Your task to perform on an android device: What is the recent news? Image 0: 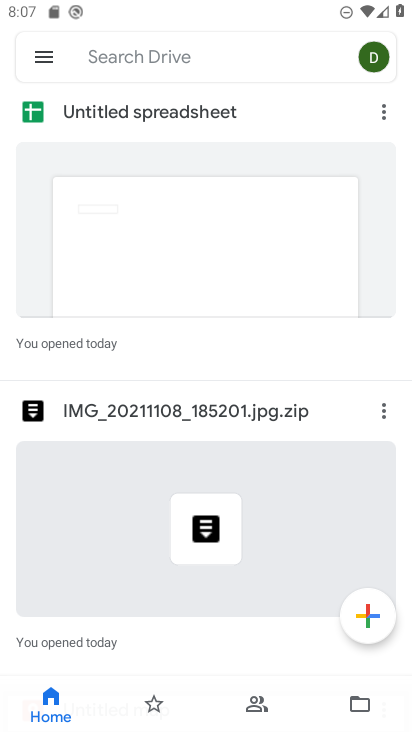
Step 0: press home button
Your task to perform on an android device: What is the recent news? Image 1: 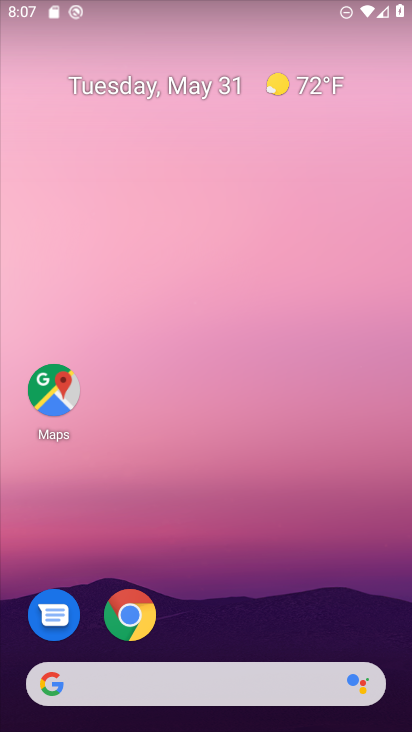
Step 1: click (156, 675)
Your task to perform on an android device: What is the recent news? Image 2: 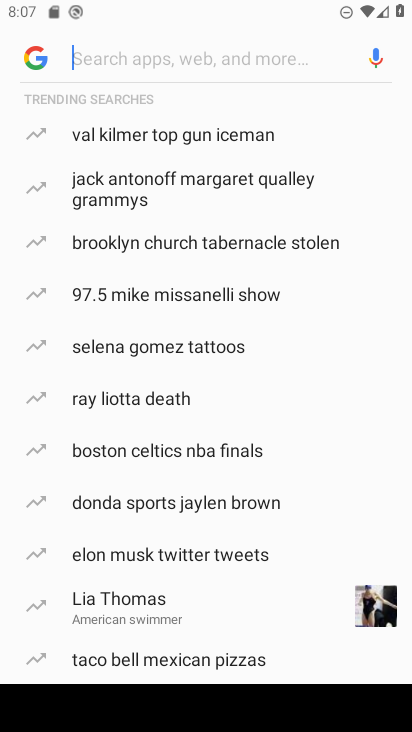
Step 2: type "what is the recent news"
Your task to perform on an android device: What is the recent news? Image 3: 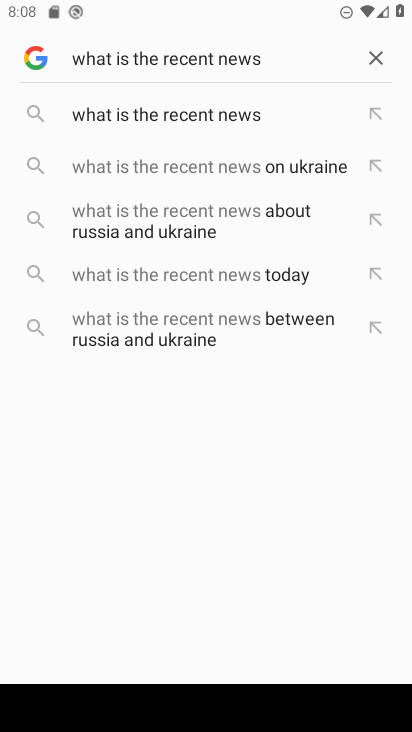
Step 3: click (154, 109)
Your task to perform on an android device: What is the recent news? Image 4: 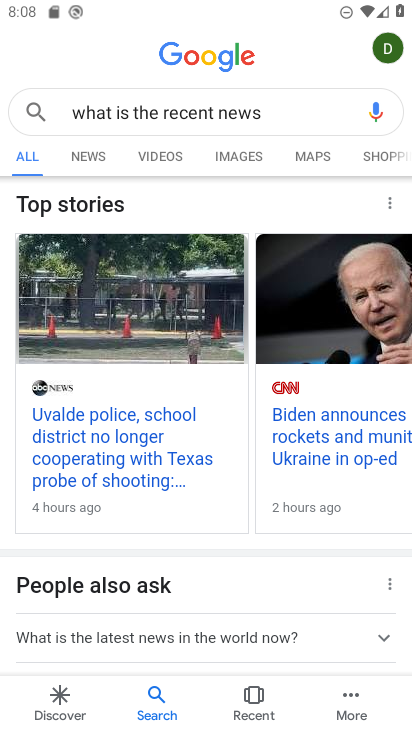
Step 4: task complete